Your task to perform on an android device: Open privacy settings Image 0: 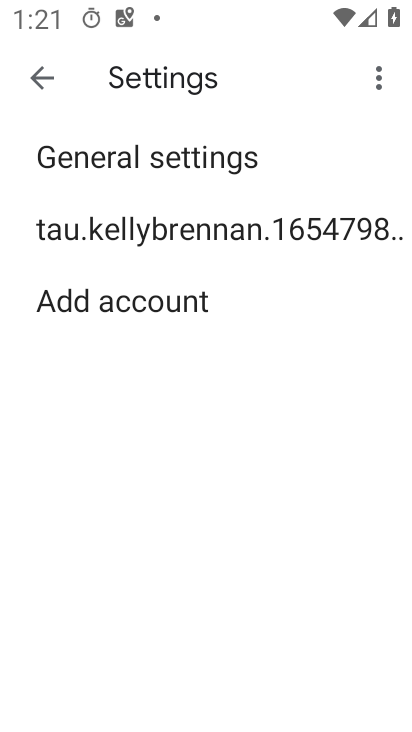
Step 0: press home button
Your task to perform on an android device: Open privacy settings Image 1: 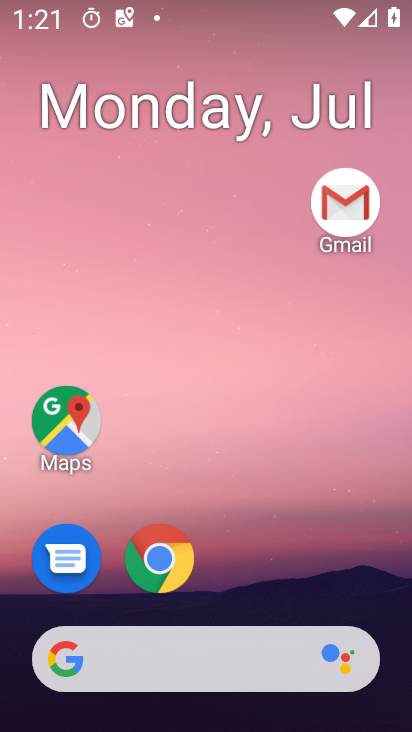
Step 1: drag from (325, 574) to (342, 80)
Your task to perform on an android device: Open privacy settings Image 2: 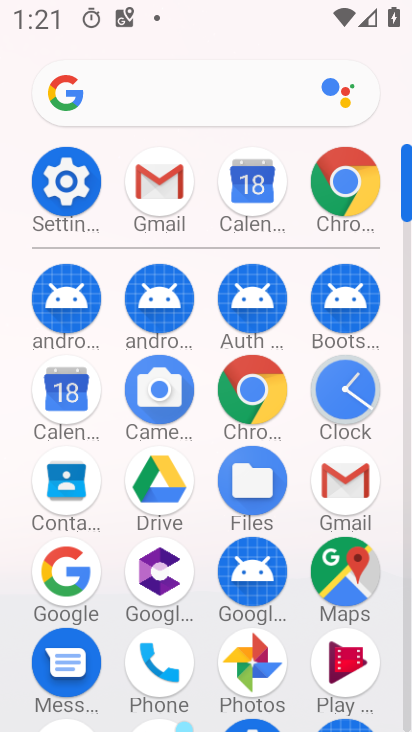
Step 2: click (82, 201)
Your task to perform on an android device: Open privacy settings Image 3: 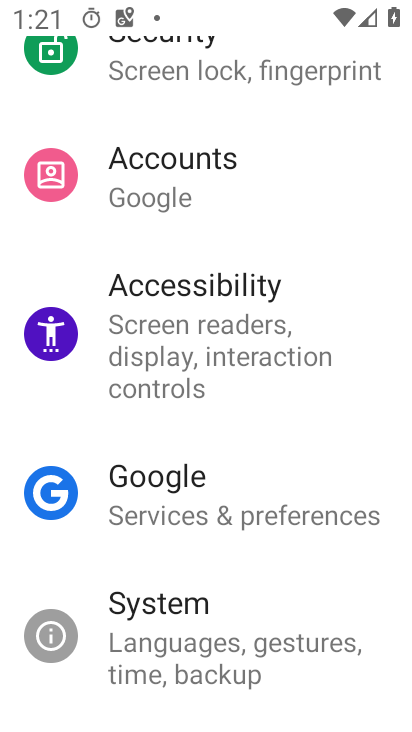
Step 3: drag from (341, 223) to (347, 286)
Your task to perform on an android device: Open privacy settings Image 4: 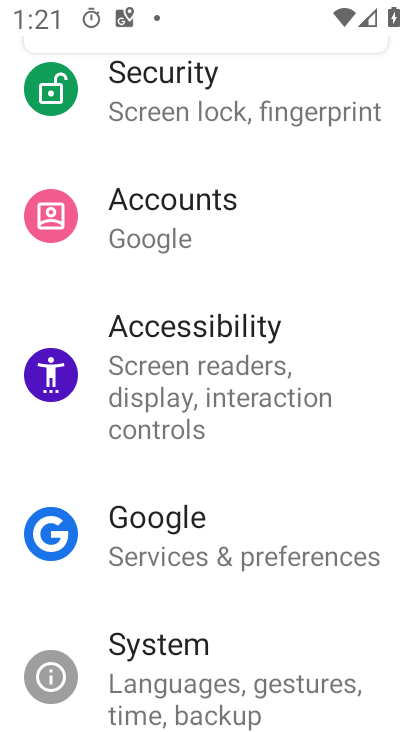
Step 4: drag from (349, 197) to (350, 274)
Your task to perform on an android device: Open privacy settings Image 5: 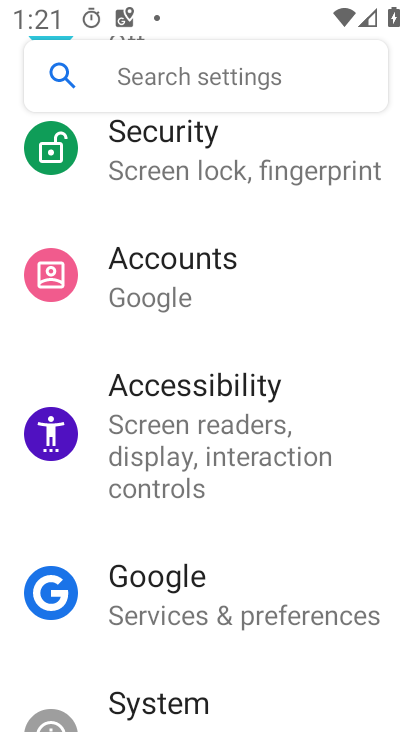
Step 5: drag from (350, 196) to (352, 281)
Your task to perform on an android device: Open privacy settings Image 6: 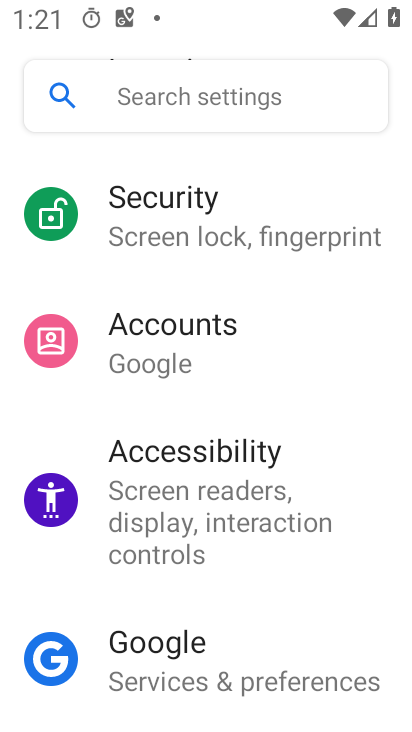
Step 6: drag from (351, 201) to (352, 284)
Your task to perform on an android device: Open privacy settings Image 7: 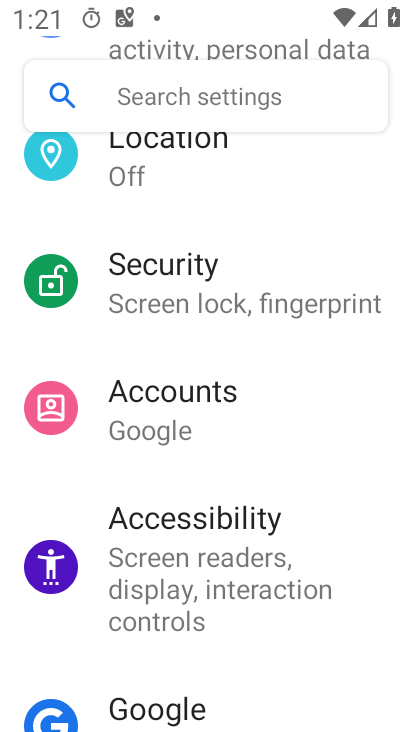
Step 7: drag from (348, 193) to (352, 263)
Your task to perform on an android device: Open privacy settings Image 8: 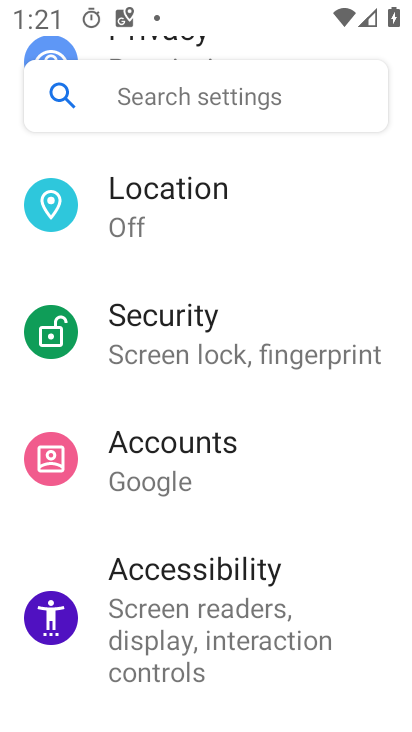
Step 8: drag from (353, 199) to (348, 304)
Your task to perform on an android device: Open privacy settings Image 9: 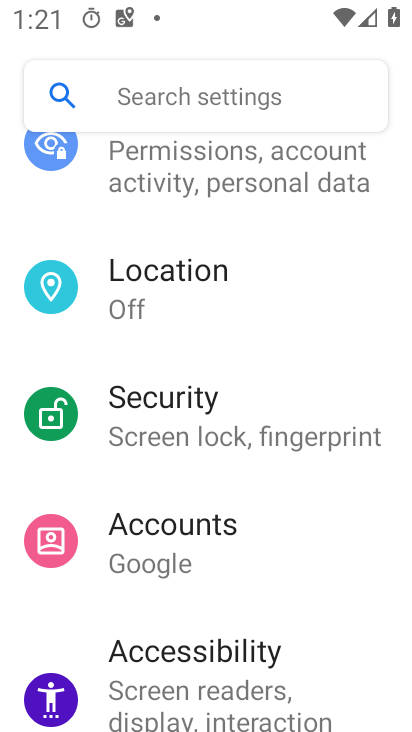
Step 9: drag from (339, 238) to (342, 312)
Your task to perform on an android device: Open privacy settings Image 10: 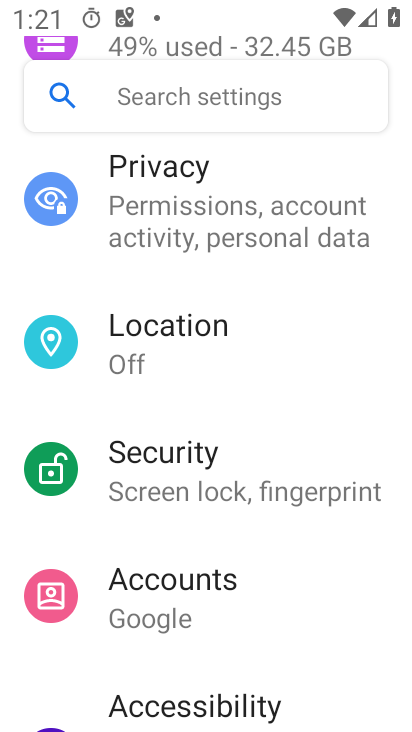
Step 10: drag from (344, 223) to (348, 321)
Your task to perform on an android device: Open privacy settings Image 11: 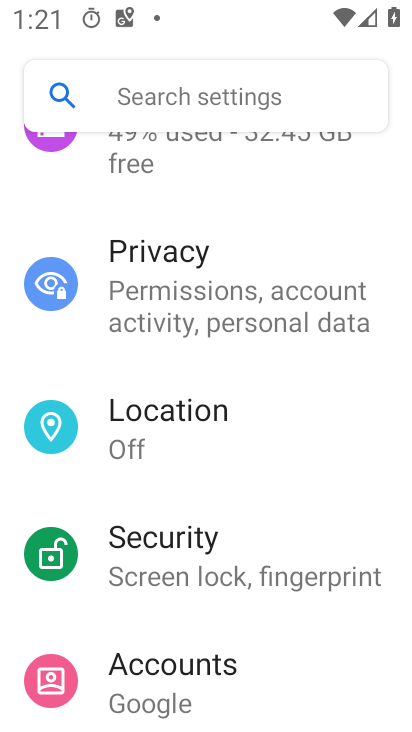
Step 11: drag from (348, 211) to (348, 321)
Your task to perform on an android device: Open privacy settings Image 12: 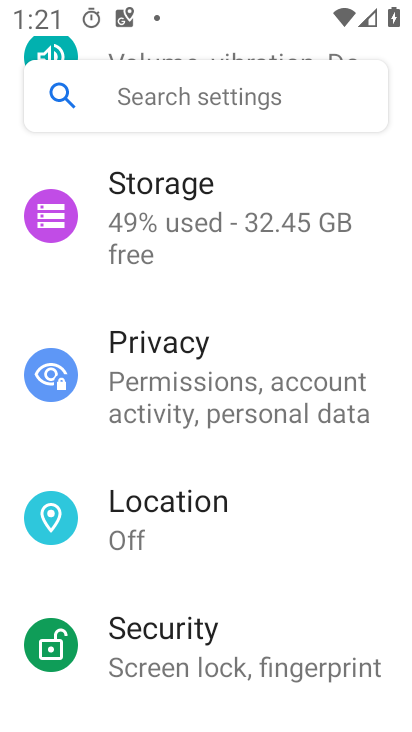
Step 12: drag from (364, 247) to (364, 341)
Your task to perform on an android device: Open privacy settings Image 13: 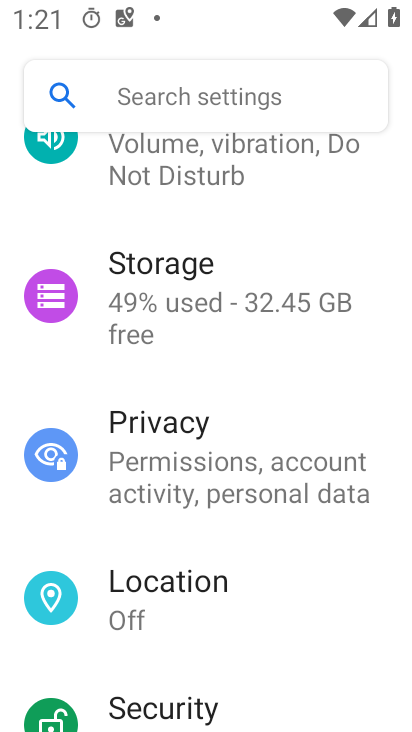
Step 13: drag from (359, 261) to (360, 359)
Your task to perform on an android device: Open privacy settings Image 14: 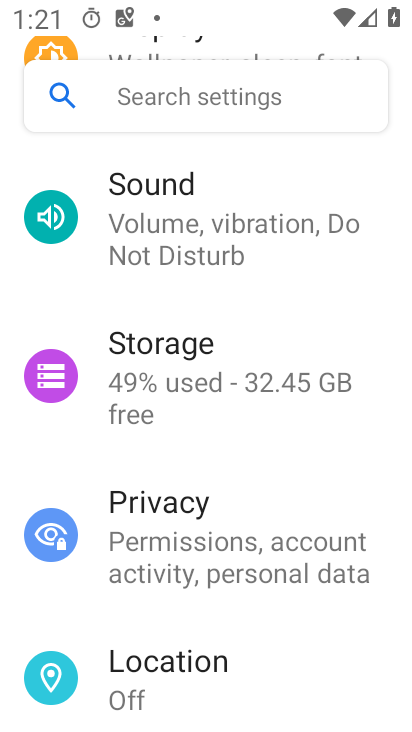
Step 14: drag from (353, 285) to (361, 396)
Your task to perform on an android device: Open privacy settings Image 15: 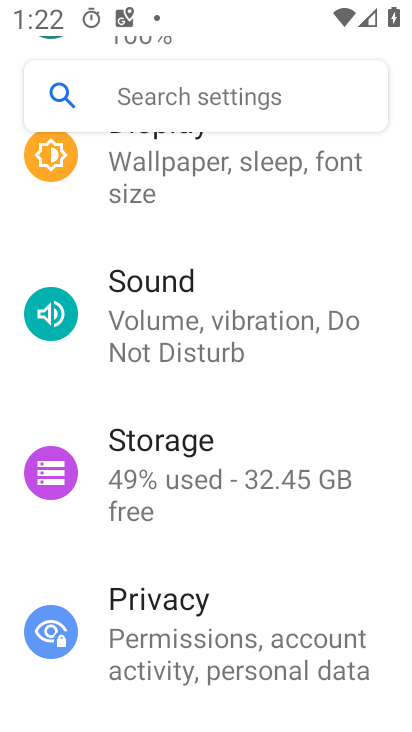
Step 15: click (311, 614)
Your task to perform on an android device: Open privacy settings Image 16: 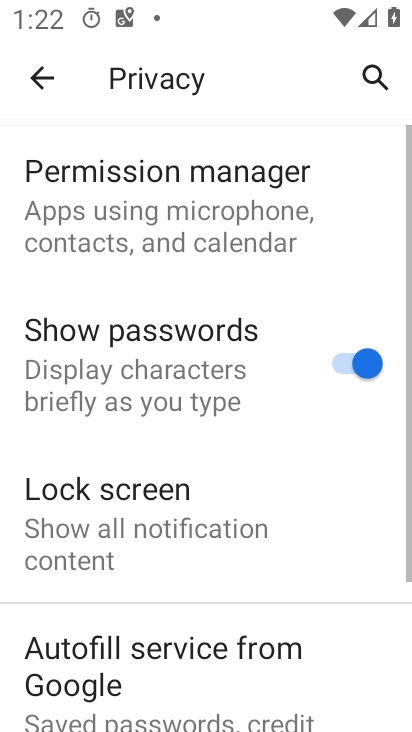
Step 16: task complete